Your task to perform on an android device: Go to CNN.com Image 0: 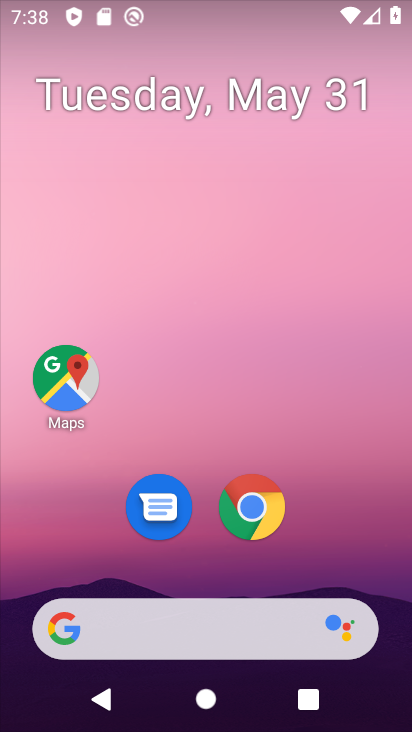
Step 0: click (254, 508)
Your task to perform on an android device: Go to CNN.com Image 1: 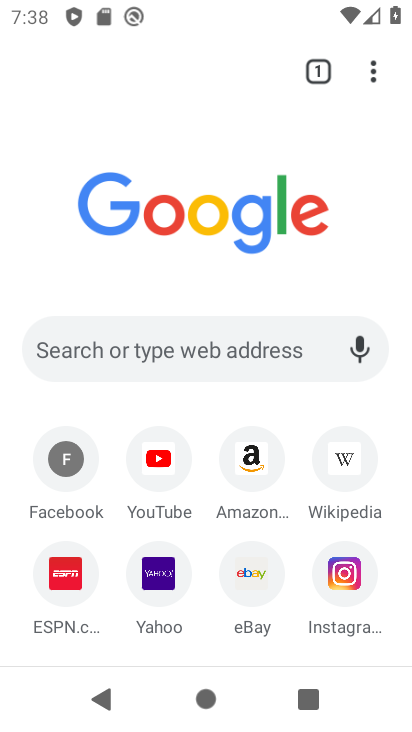
Step 1: click (76, 355)
Your task to perform on an android device: Go to CNN.com Image 2: 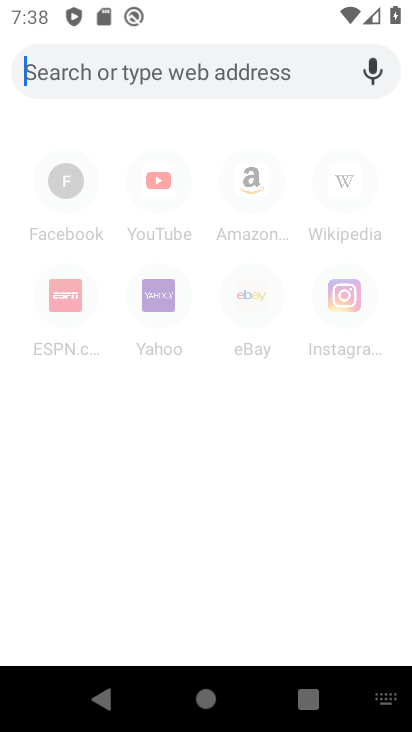
Step 2: type "cnn.com"
Your task to perform on an android device: Go to CNN.com Image 3: 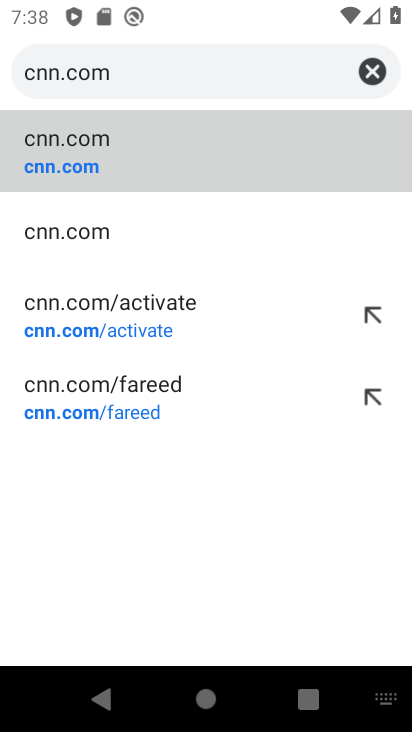
Step 3: click (62, 146)
Your task to perform on an android device: Go to CNN.com Image 4: 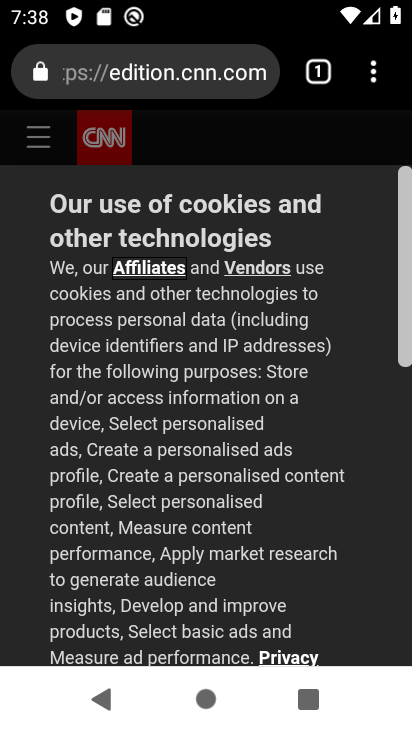
Step 4: task complete